Your task to perform on an android device: Open maps Image 0: 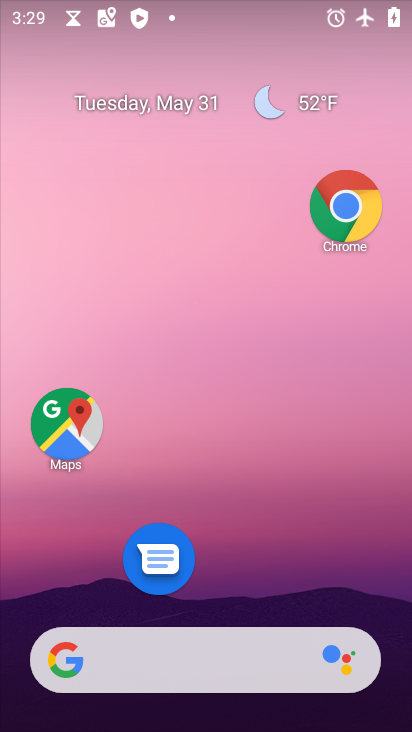
Step 0: press home button
Your task to perform on an android device: Open maps Image 1: 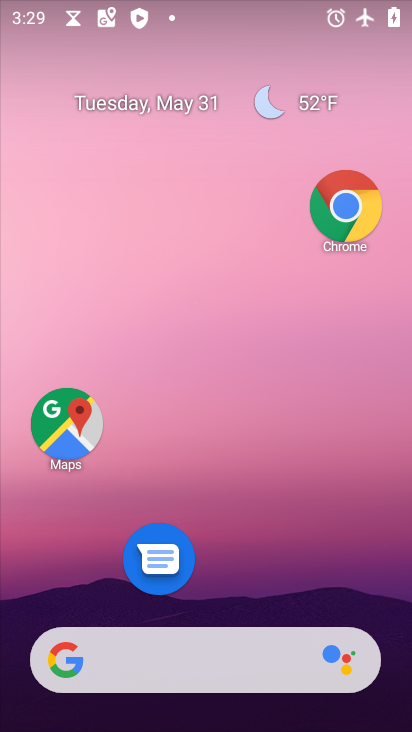
Step 1: click (66, 426)
Your task to perform on an android device: Open maps Image 2: 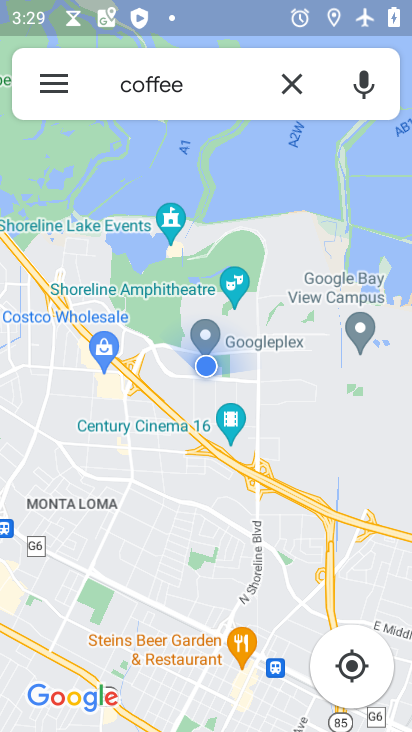
Step 2: click (284, 81)
Your task to perform on an android device: Open maps Image 3: 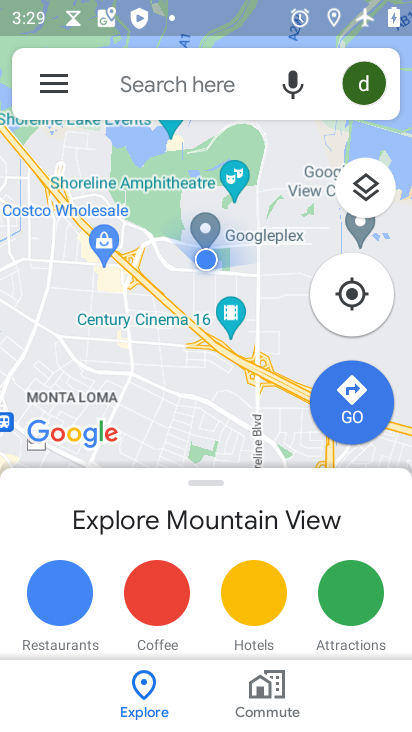
Step 3: task complete